Your task to perform on an android device: Open Chrome and go to settings Image 0: 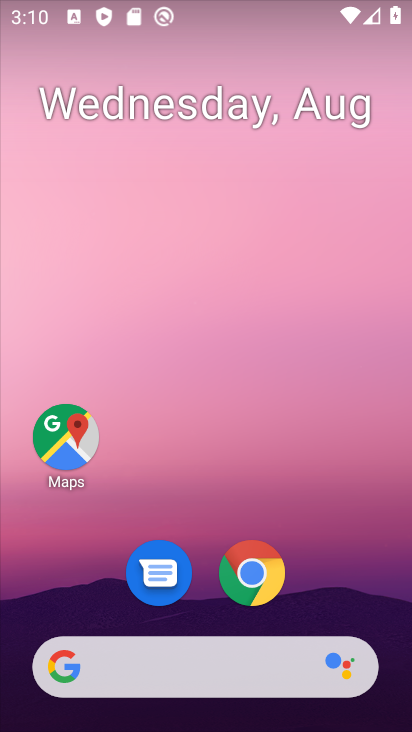
Step 0: click (270, 597)
Your task to perform on an android device: Open Chrome and go to settings Image 1: 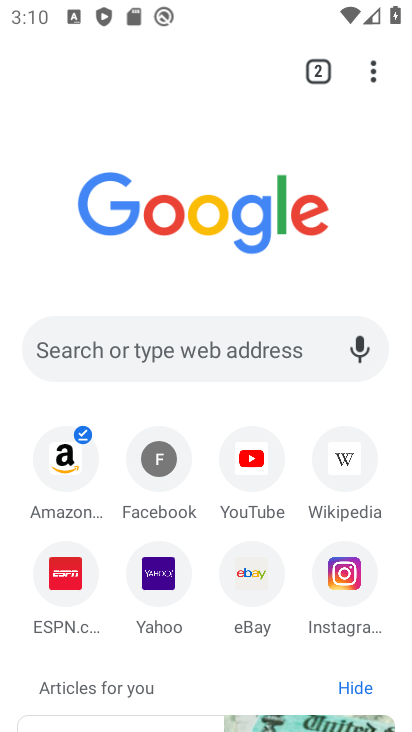
Step 1: click (374, 70)
Your task to perform on an android device: Open Chrome and go to settings Image 2: 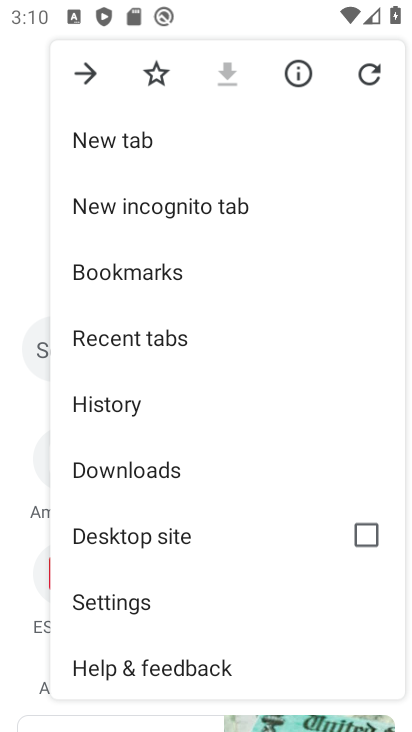
Step 2: click (146, 601)
Your task to perform on an android device: Open Chrome and go to settings Image 3: 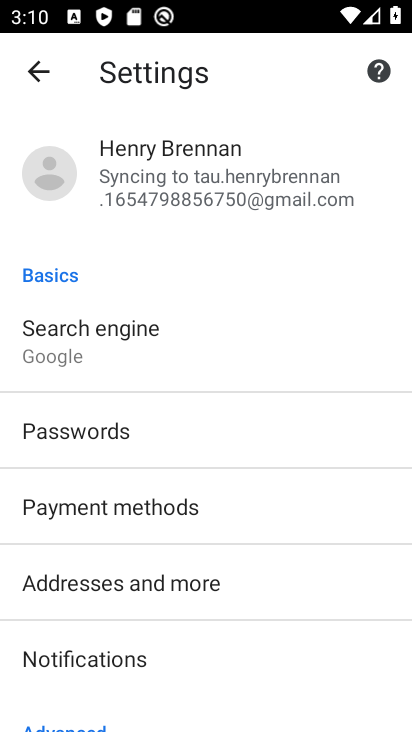
Step 3: task complete